Your task to perform on an android device: Open settings on Google Maps Image 0: 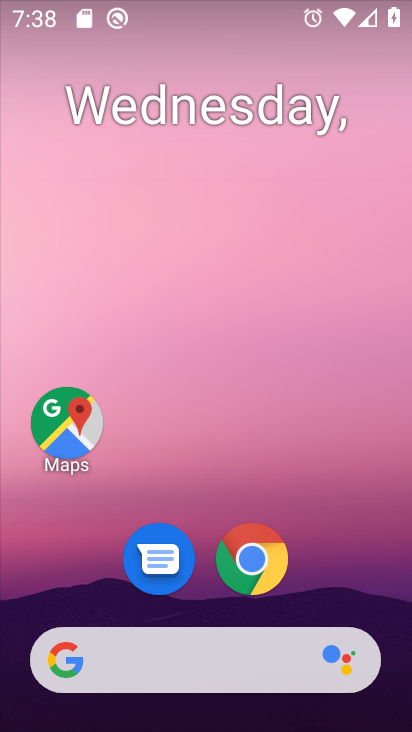
Step 0: drag from (359, 567) to (395, 121)
Your task to perform on an android device: Open settings on Google Maps Image 1: 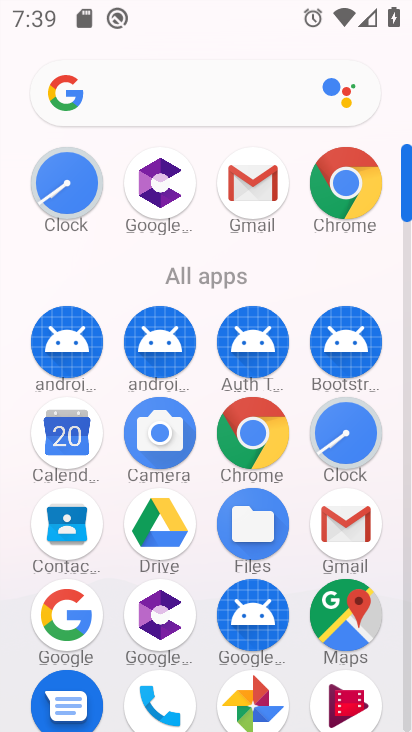
Step 1: click (342, 623)
Your task to perform on an android device: Open settings on Google Maps Image 2: 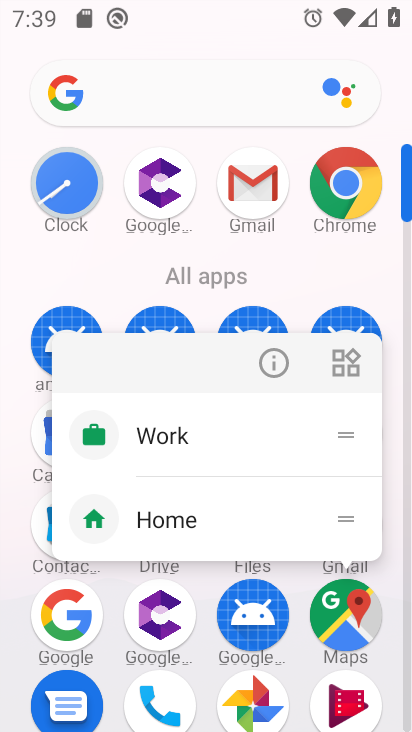
Step 2: click (355, 620)
Your task to perform on an android device: Open settings on Google Maps Image 3: 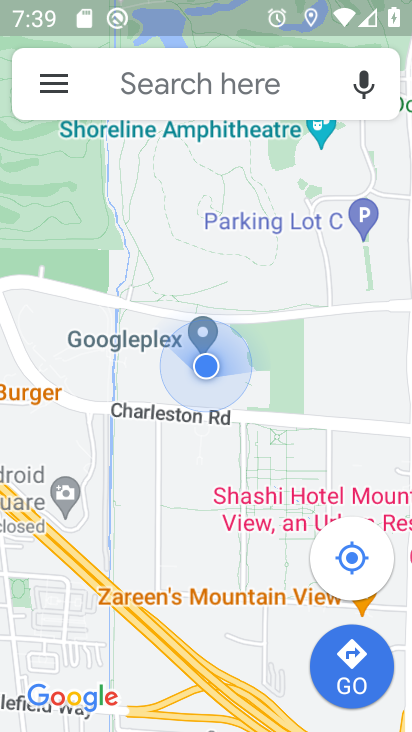
Step 3: click (41, 75)
Your task to perform on an android device: Open settings on Google Maps Image 4: 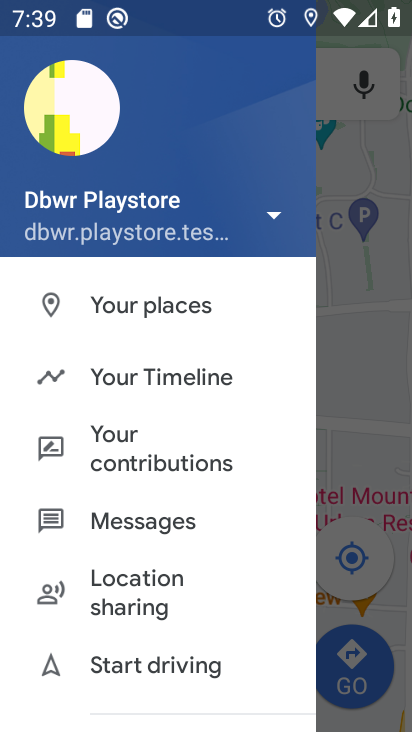
Step 4: click (135, 369)
Your task to perform on an android device: Open settings on Google Maps Image 5: 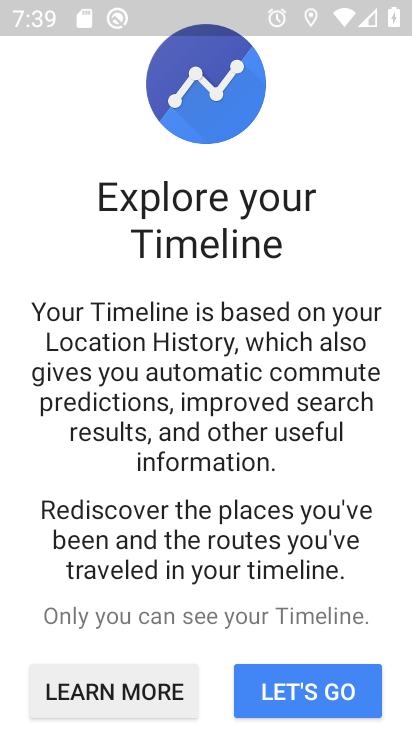
Step 5: click (316, 686)
Your task to perform on an android device: Open settings on Google Maps Image 6: 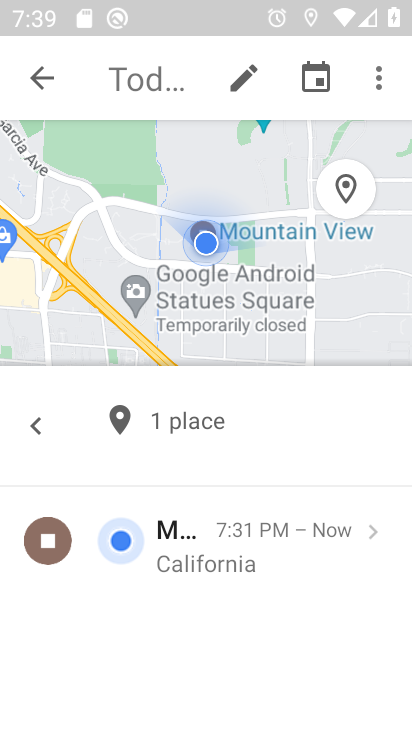
Step 6: click (373, 80)
Your task to perform on an android device: Open settings on Google Maps Image 7: 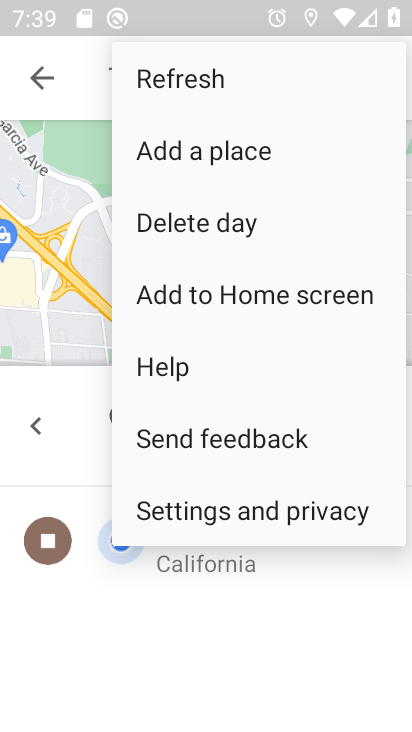
Step 7: click (243, 513)
Your task to perform on an android device: Open settings on Google Maps Image 8: 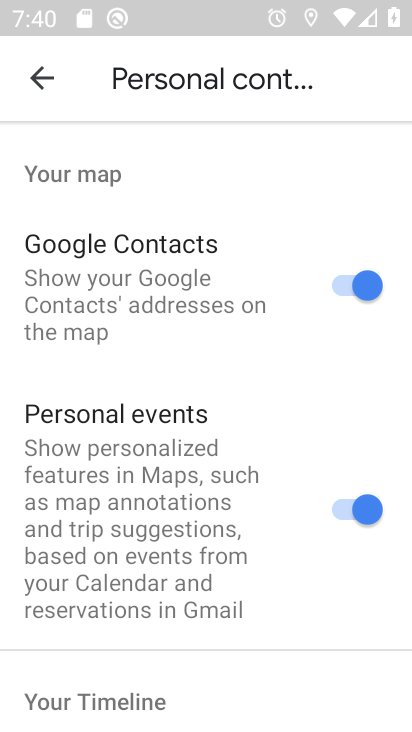
Step 8: task complete